Your task to perform on an android device: Open calendar and show me the third week of next month Image 0: 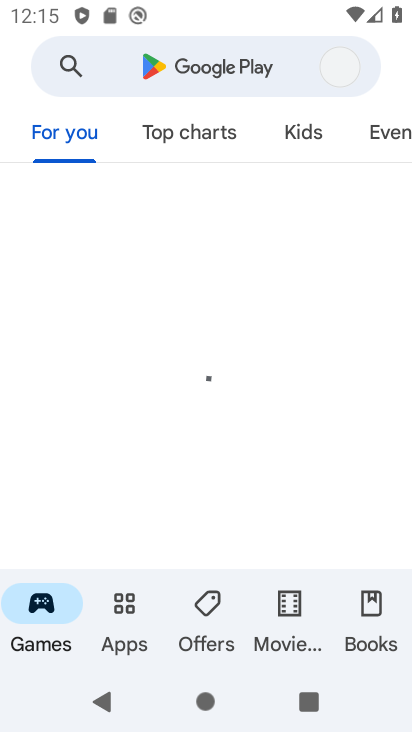
Step 0: press home button
Your task to perform on an android device: Open calendar and show me the third week of next month Image 1: 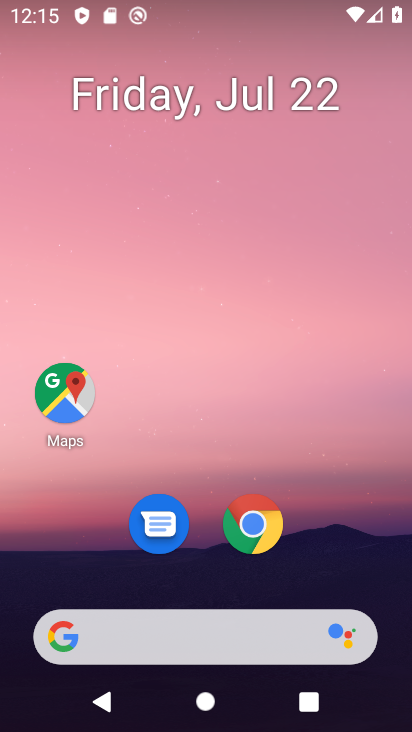
Step 1: drag from (159, 644) to (341, 48)
Your task to perform on an android device: Open calendar and show me the third week of next month Image 2: 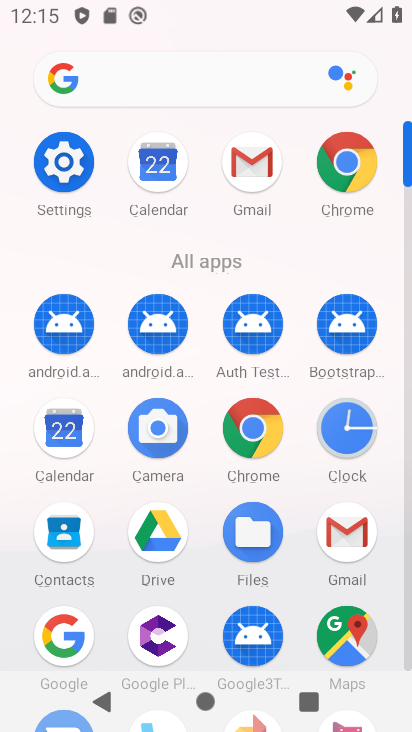
Step 2: click (69, 438)
Your task to perform on an android device: Open calendar and show me the third week of next month Image 3: 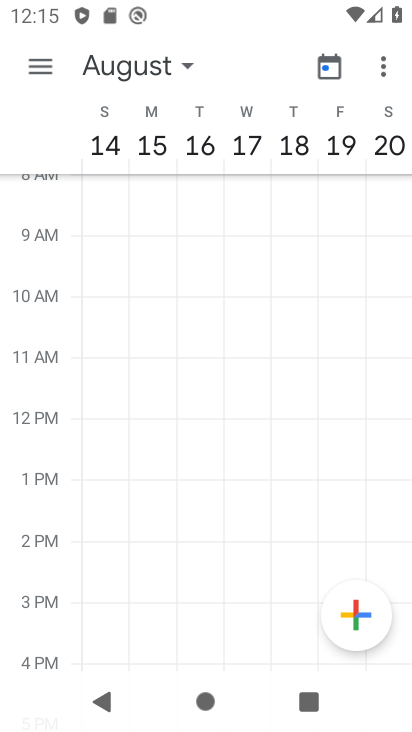
Step 3: click (144, 72)
Your task to perform on an android device: Open calendar and show me the third week of next month Image 4: 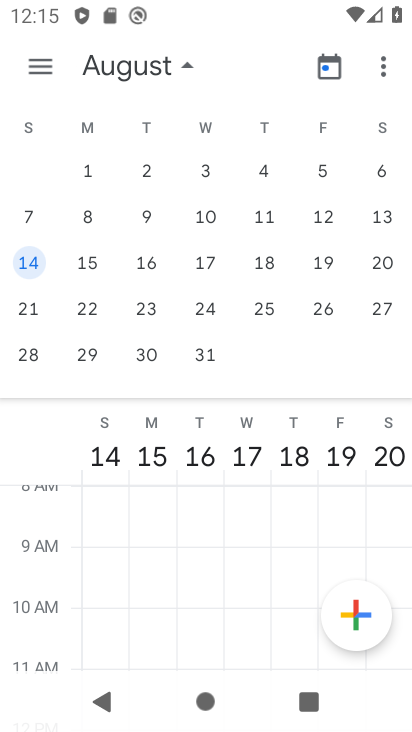
Step 4: task complete